Your task to perform on an android device: check data usage Image 0: 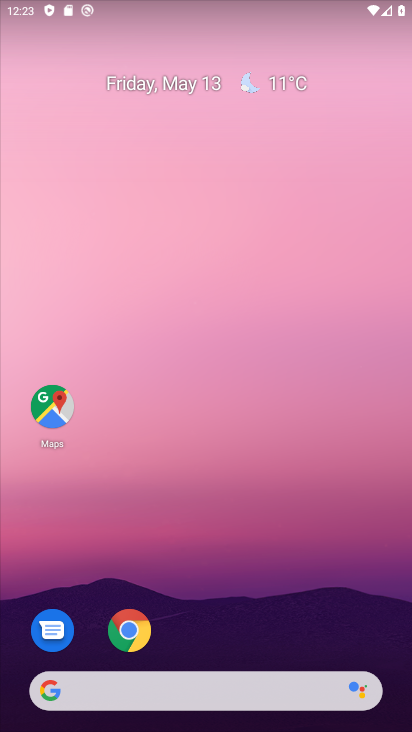
Step 0: drag from (298, 600) to (294, 34)
Your task to perform on an android device: check data usage Image 1: 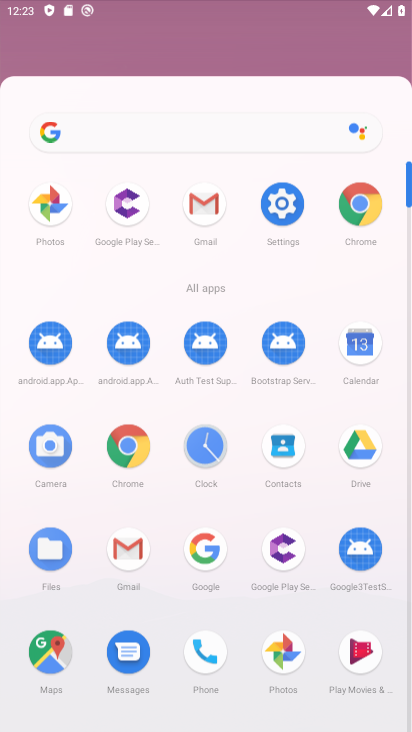
Step 1: click (288, 168)
Your task to perform on an android device: check data usage Image 2: 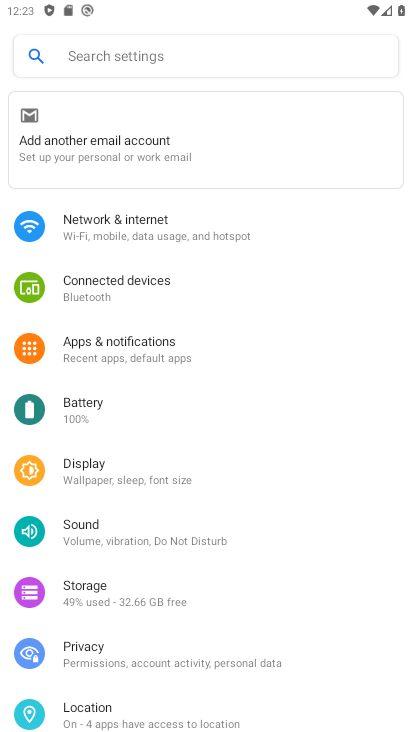
Step 2: click (145, 238)
Your task to perform on an android device: check data usage Image 3: 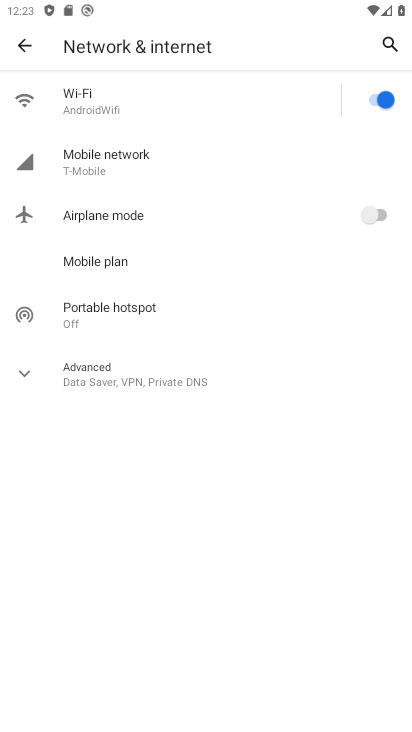
Step 3: click (75, 174)
Your task to perform on an android device: check data usage Image 4: 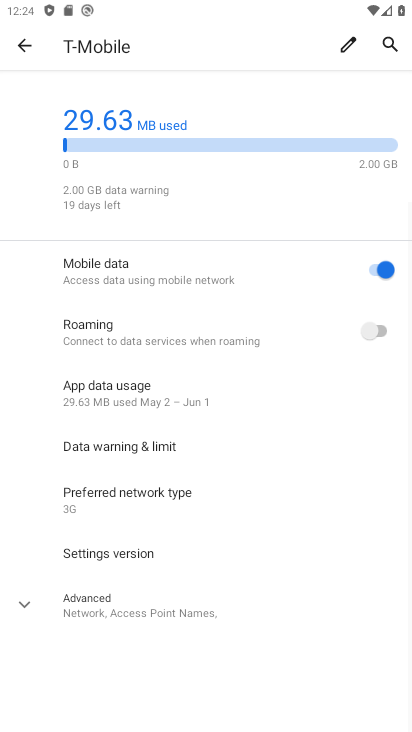
Step 4: click (103, 393)
Your task to perform on an android device: check data usage Image 5: 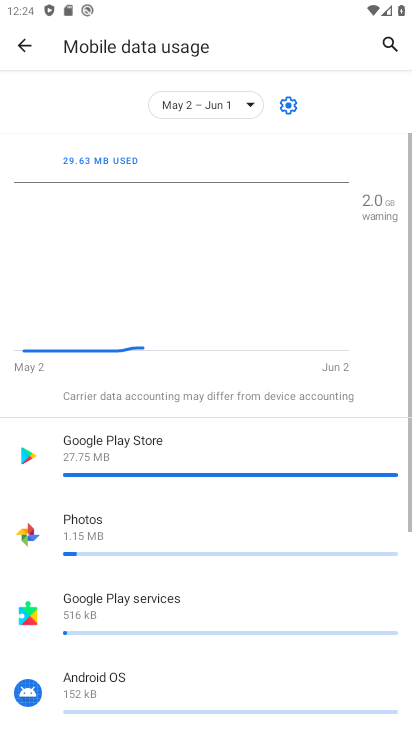
Step 5: task complete